Your task to perform on an android device: turn on improve location accuracy Image 0: 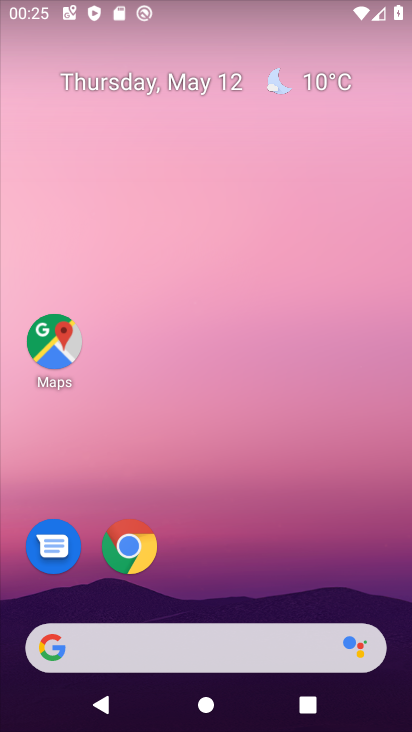
Step 0: drag from (133, 613) to (157, 223)
Your task to perform on an android device: turn on improve location accuracy Image 1: 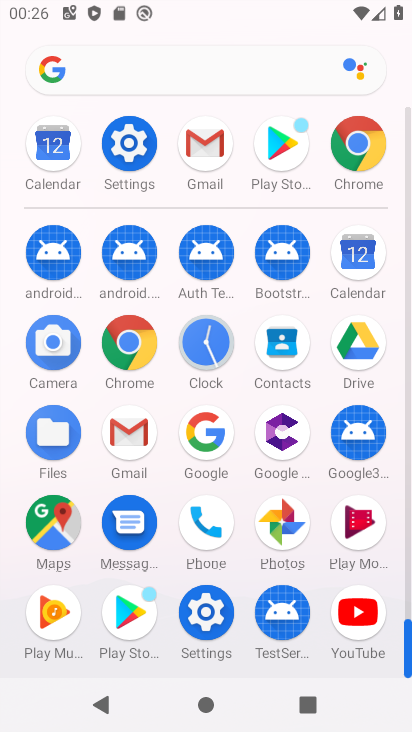
Step 1: click (204, 629)
Your task to perform on an android device: turn on improve location accuracy Image 2: 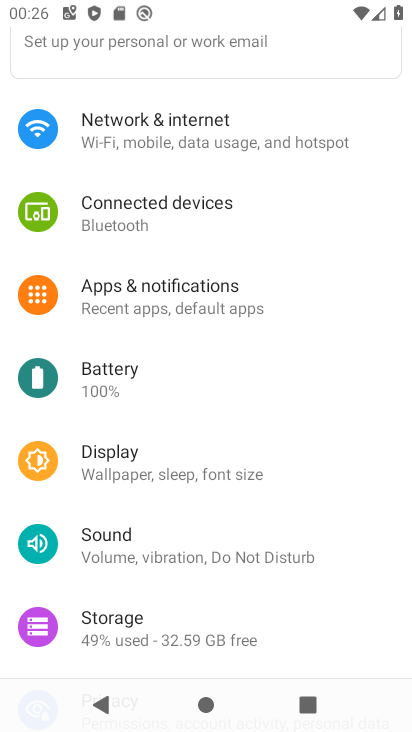
Step 2: drag from (159, 448) to (144, 142)
Your task to perform on an android device: turn on improve location accuracy Image 3: 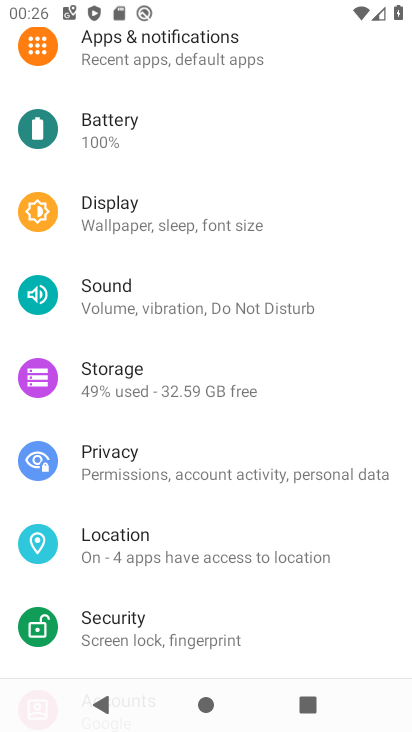
Step 3: click (114, 544)
Your task to perform on an android device: turn on improve location accuracy Image 4: 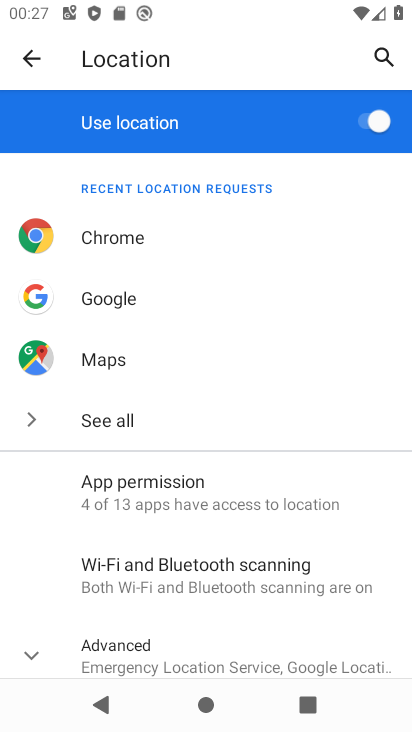
Step 4: drag from (210, 607) to (251, 319)
Your task to perform on an android device: turn on improve location accuracy Image 5: 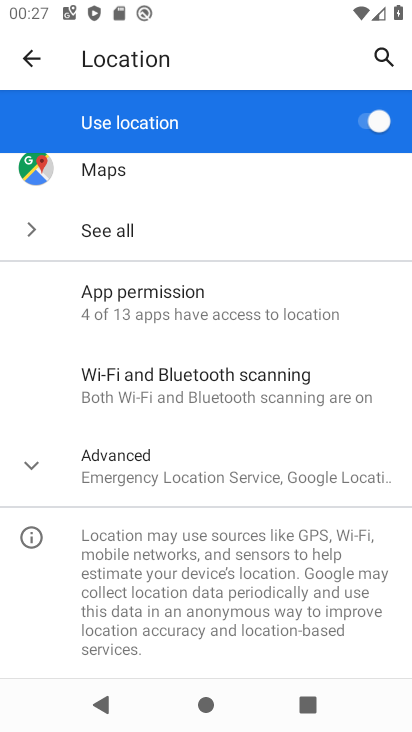
Step 5: click (28, 457)
Your task to perform on an android device: turn on improve location accuracy Image 6: 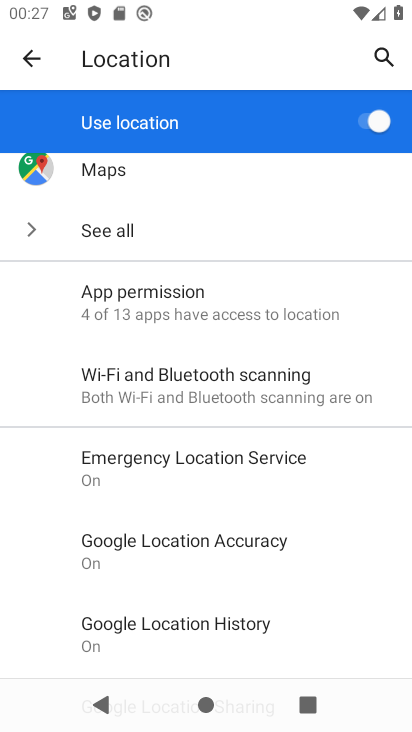
Step 6: click (238, 547)
Your task to perform on an android device: turn on improve location accuracy Image 7: 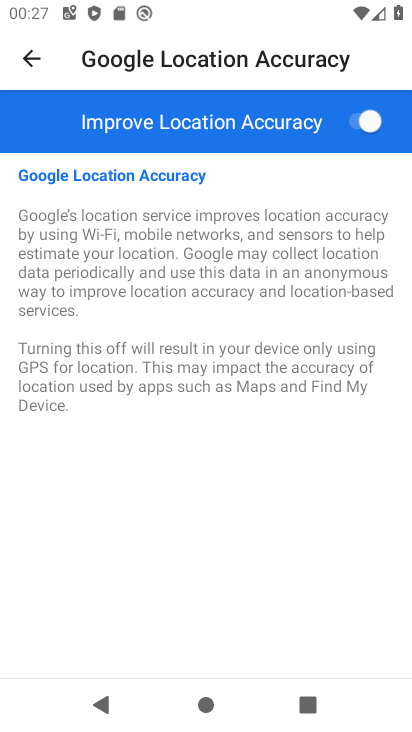
Step 7: task complete